Your task to perform on an android device: delete location history Image 0: 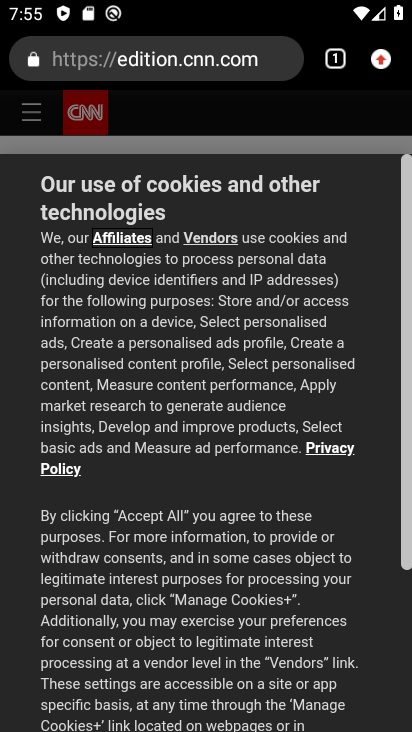
Step 0: press home button
Your task to perform on an android device: delete location history Image 1: 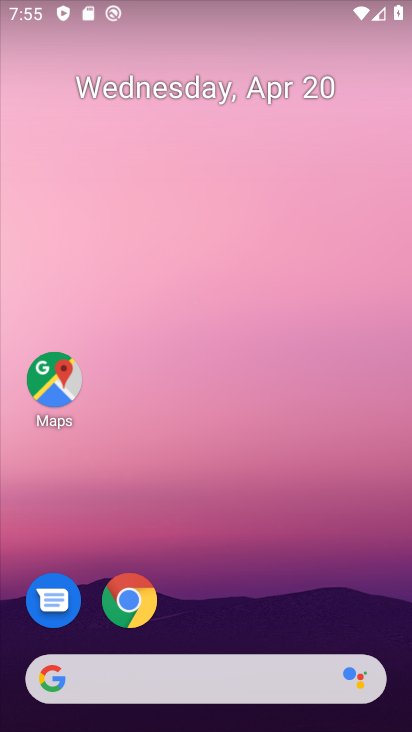
Step 1: drag from (205, 723) to (215, 209)
Your task to perform on an android device: delete location history Image 2: 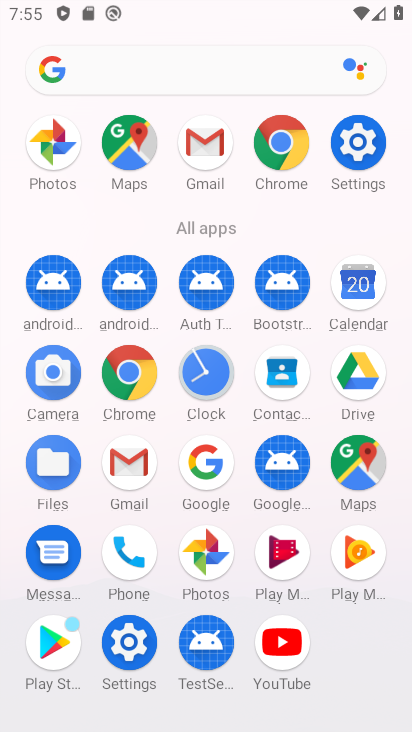
Step 2: click (351, 468)
Your task to perform on an android device: delete location history Image 3: 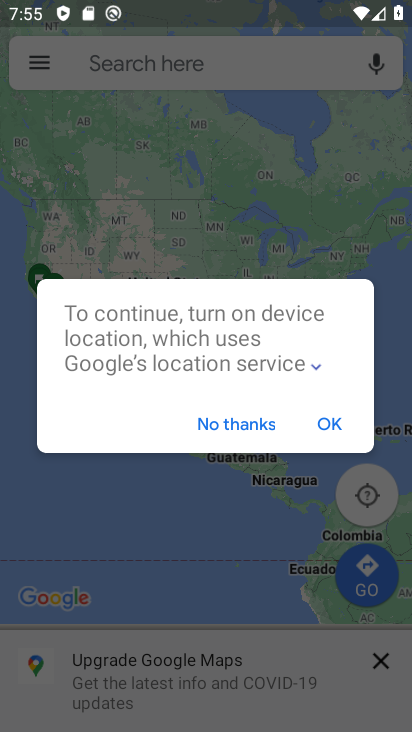
Step 3: click (238, 421)
Your task to perform on an android device: delete location history Image 4: 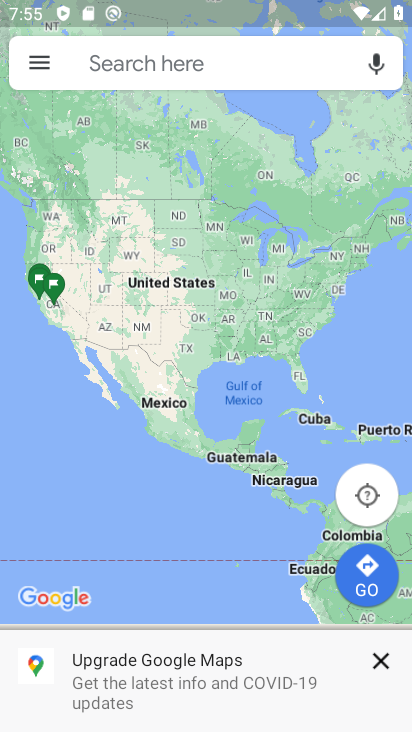
Step 4: click (42, 61)
Your task to perform on an android device: delete location history Image 5: 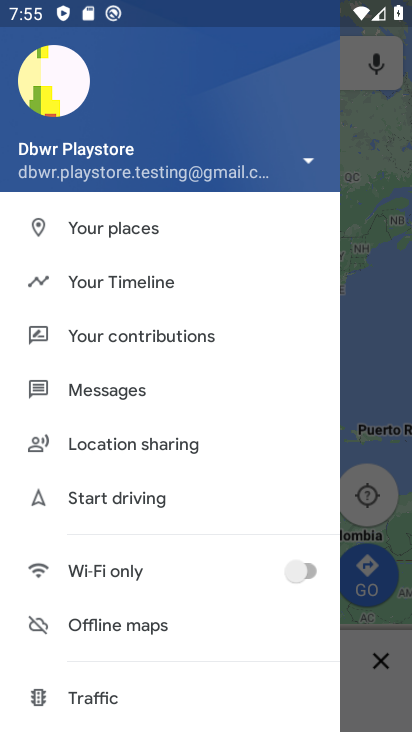
Step 5: click (135, 281)
Your task to perform on an android device: delete location history Image 6: 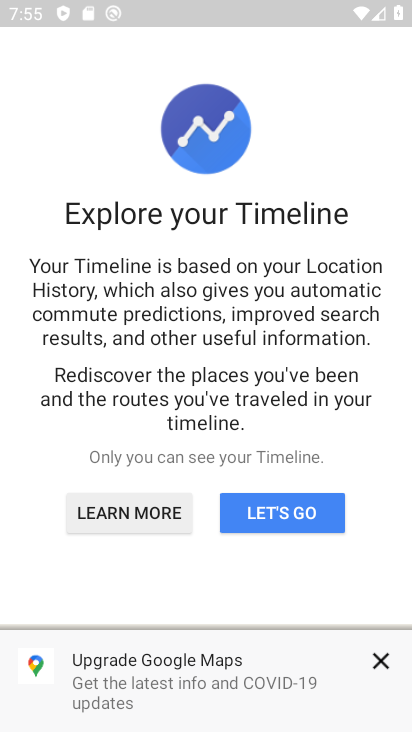
Step 6: click (271, 509)
Your task to perform on an android device: delete location history Image 7: 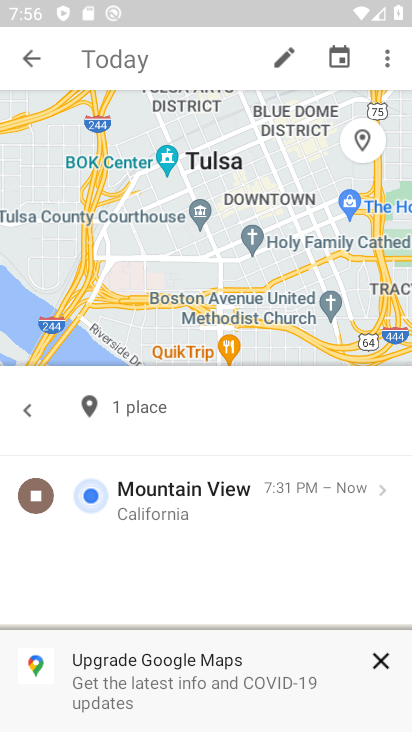
Step 7: click (386, 55)
Your task to perform on an android device: delete location history Image 8: 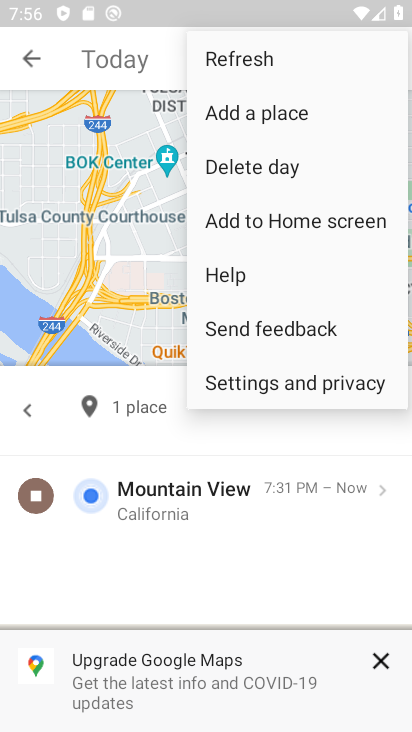
Step 8: click (270, 381)
Your task to perform on an android device: delete location history Image 9: 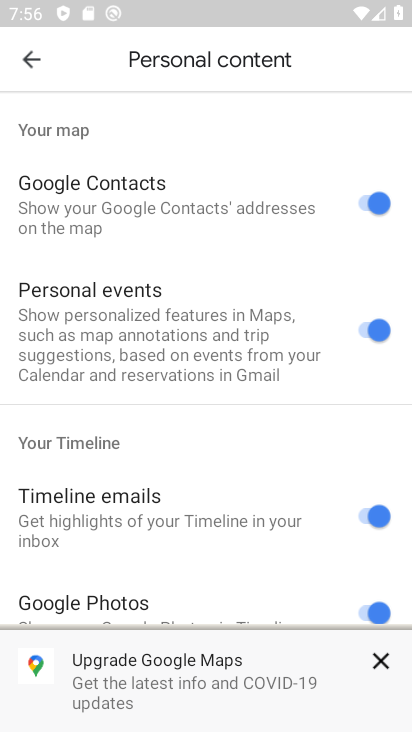
Step 9: drag from (165, 574) to (163, 128)
Your task to perform on an android device: delete location history Image 10: 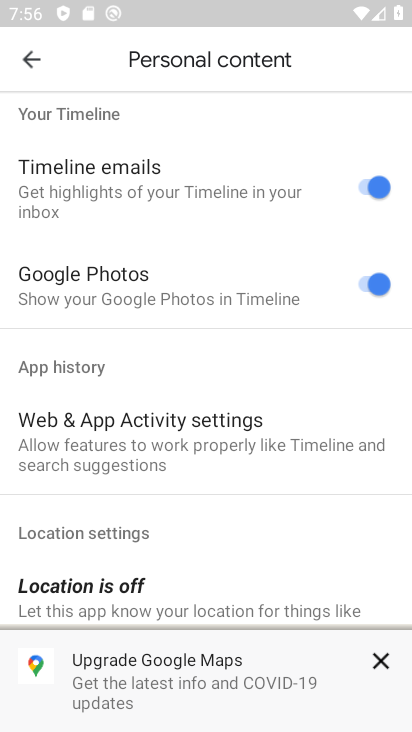
Step 10: drag from (171, 573) to (170, 182)
Your task to perform on an android device: delete location history Image 11: 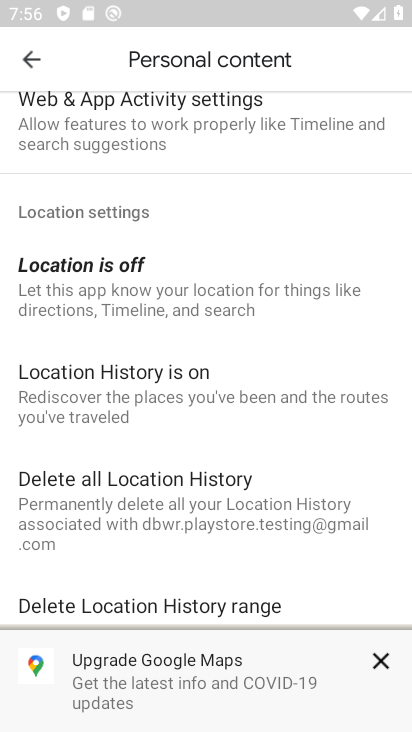
Step 11: click (170, 504)
Your task to perform on an android device: delete location history Image 12: 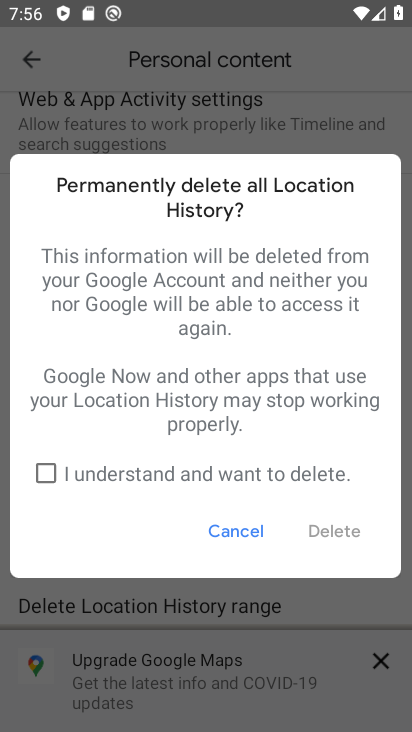
Step 12: click (46, 472)
Your task to perform on an android device: delete location history Image 13: 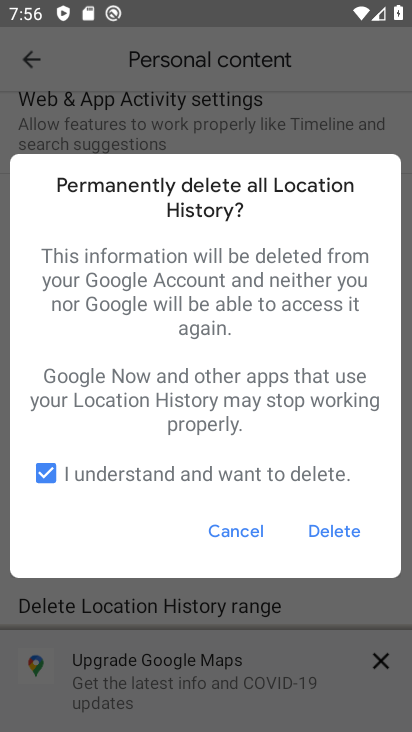
Step 13: click (333, 526)
Your task to perform on an android device: delete location history Image 14: 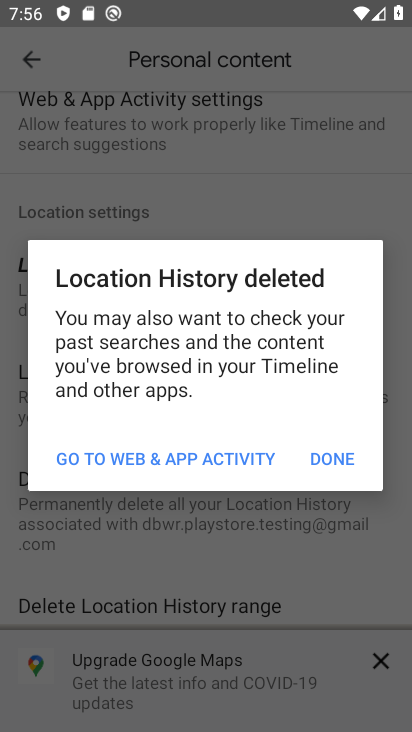
Step 14: click (330, 462)
Your task to perform on an android device: delete location history Image 15: 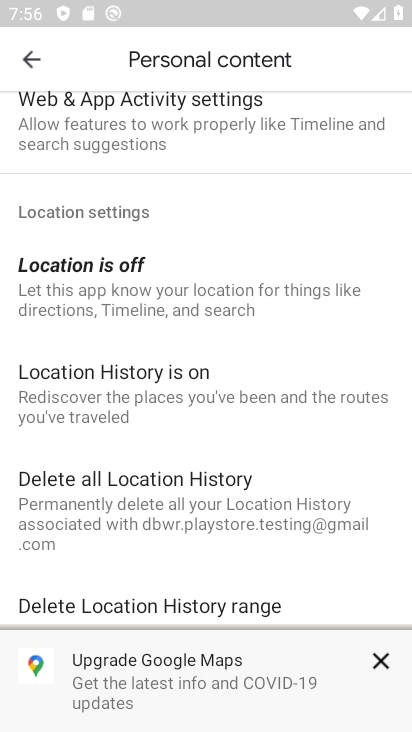
Step 15: task complete